Your task to perform on an android device: toggle sleep mode Image 0: 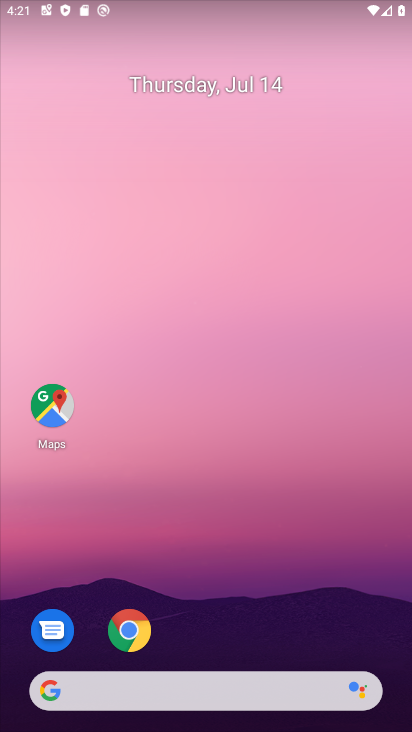
Step 0: drag from (306, 694) to (411, 15)
Your task to perform on an android device: toggle sleep mode Image 1: 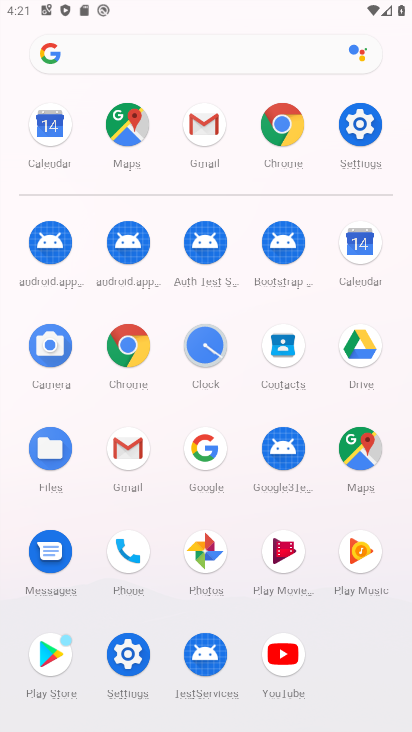
Step 1: click (370, 114)
Your task to perform on an android device: toggle sleep mode Image 2: 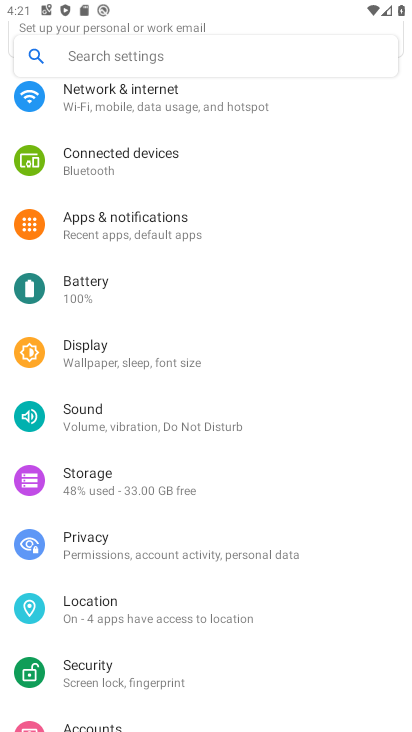
Step 2: click (170, 348)
Your task to perform on an android device: toggle sleep mode Image 3: 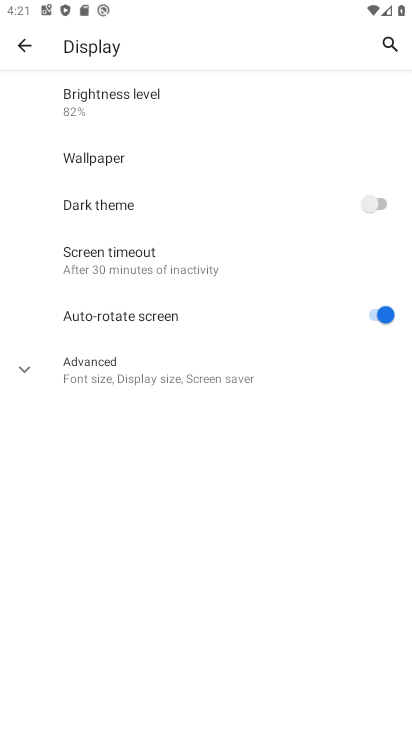
Step 3: task complete